Your task to perform on an android device: see sites visited before in the chrome app Image 0: 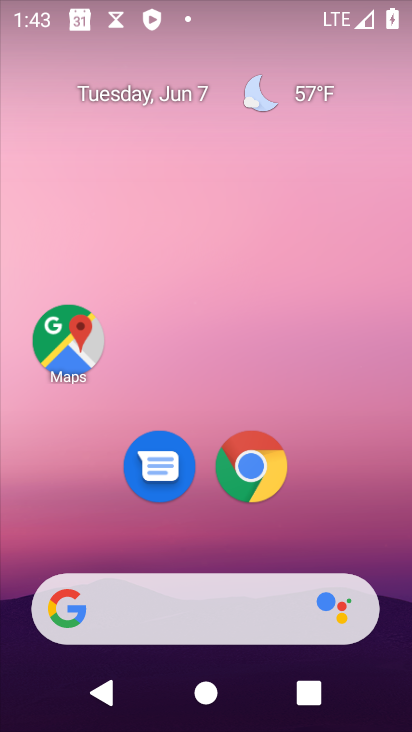
Step 0: click (252, 475)
Your task to perform on an android device: see sites visited before in the chrome app Image 1: 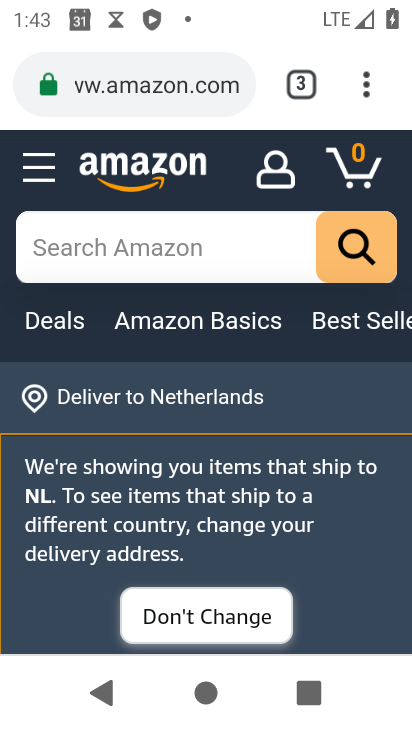
Step 1: task complete